Your task to perform on an android device: check the backup settings in the google photos Image 0: 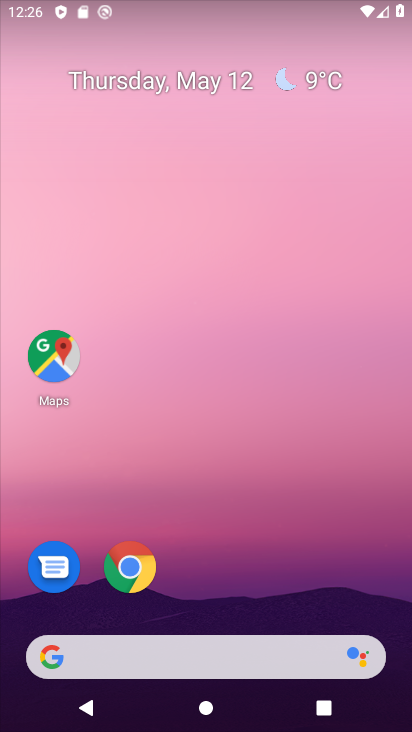
Step 0: drag from (217, 628) to (330, 116)
Your task to perform on an android device: check the backup settings in the google photos Image 1: 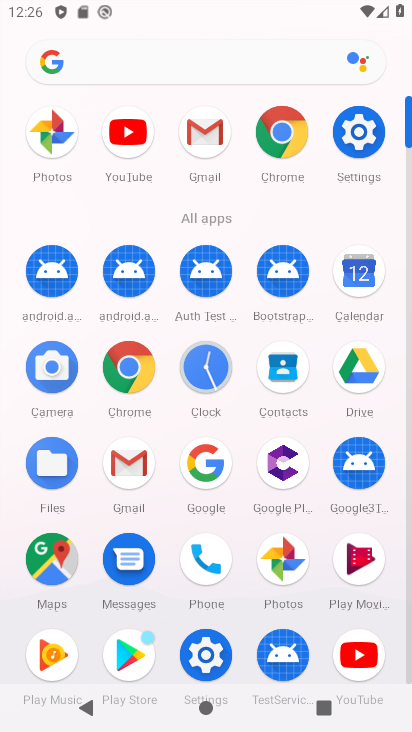
Step 1: click (282, 560)
Your task to perform on an android device: check the backup settings in the google photos Image 2: 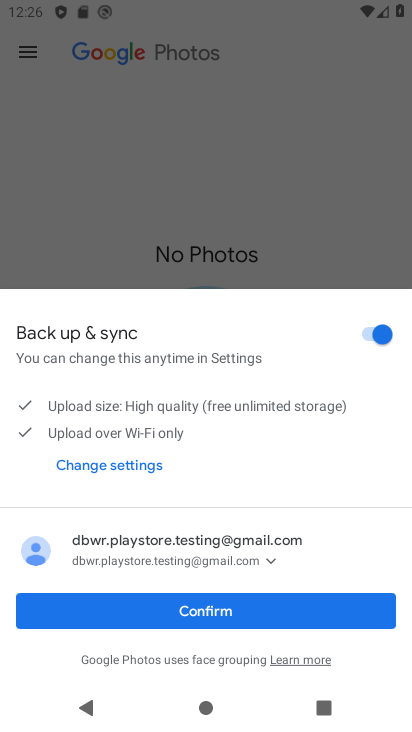
Step 2: click (213, 616)
Your task to perform on an android device: check the backup settings in the google photos Image 3: 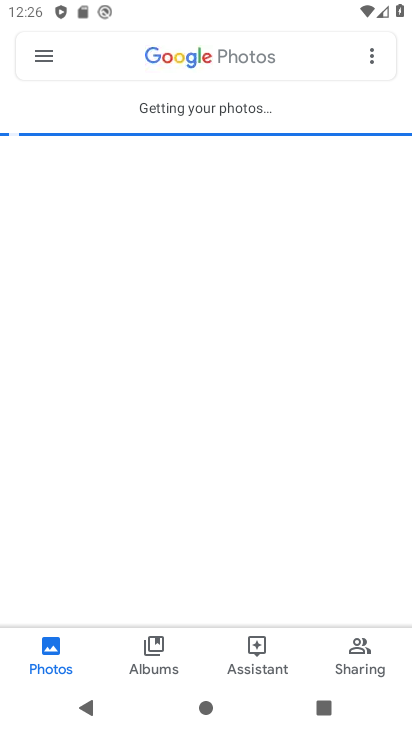
Step 3: click (42, 48)
Your task to perform on an android device: check the backup settings in the google photos Image 4: 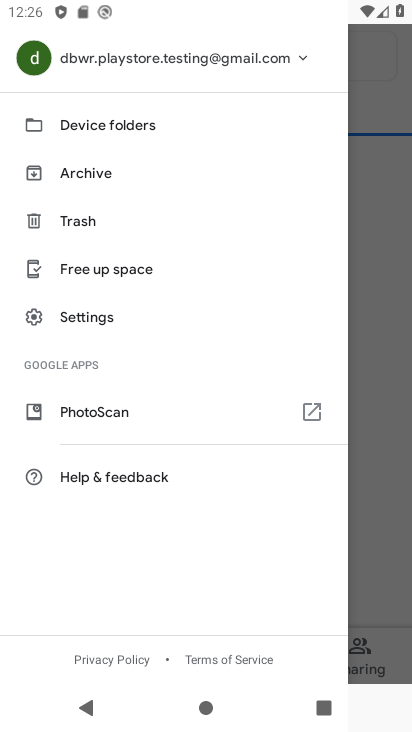
Step 4: click (126, 329)
Your task to perform on an android device: check the backup settings in the google photos Image 5: 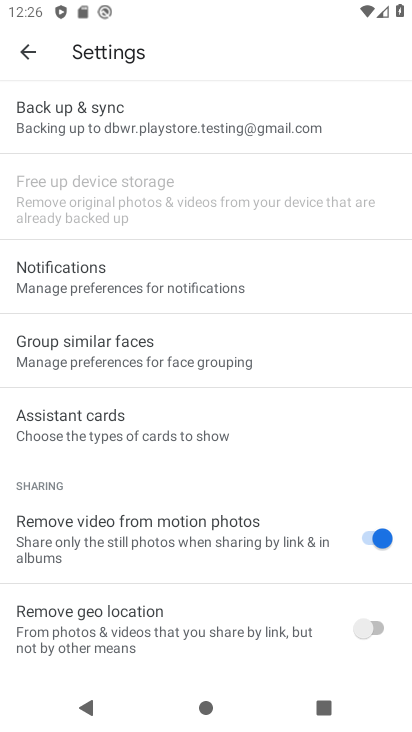
Step 5: click (139, 119)
Your task to perform on an android device: check the backup settings in the google photos Image 6: 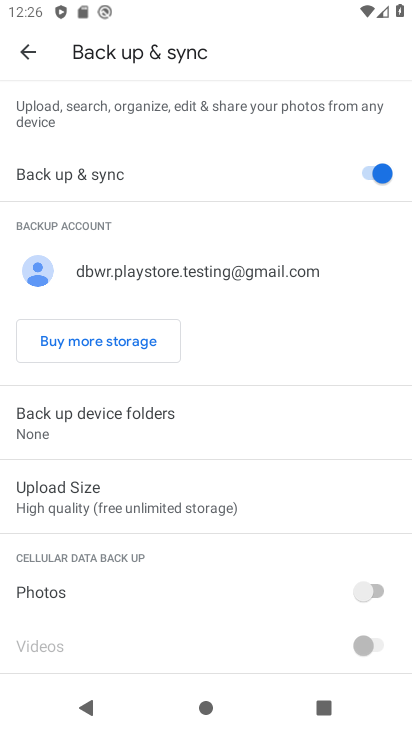
Step 6: task complete